Your task to perform on an android device: open sync settings in chrome Image 0: 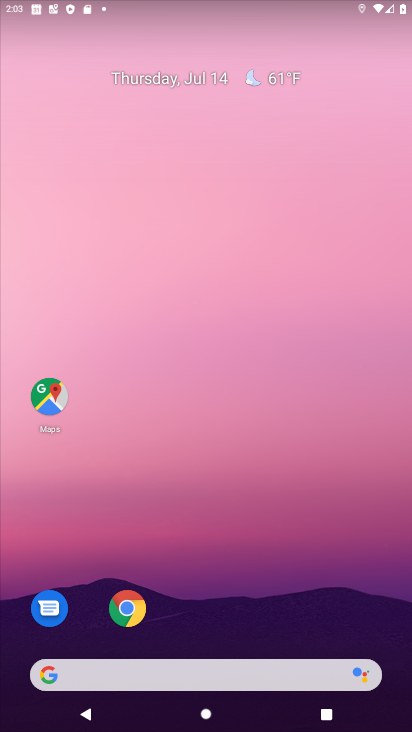
Step 0: click (126, 609)
Your task to perform on an android device: open sync settings in chrome Image 1: 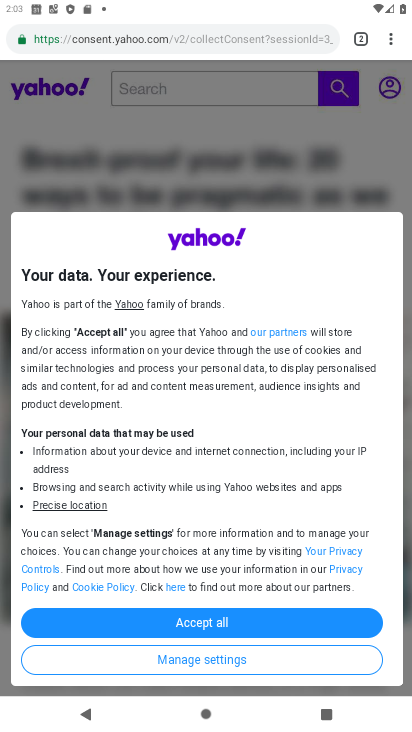
Step 1: click (390, 40)
Your task to perform on an android device: open sync settings in chrome Image 2: 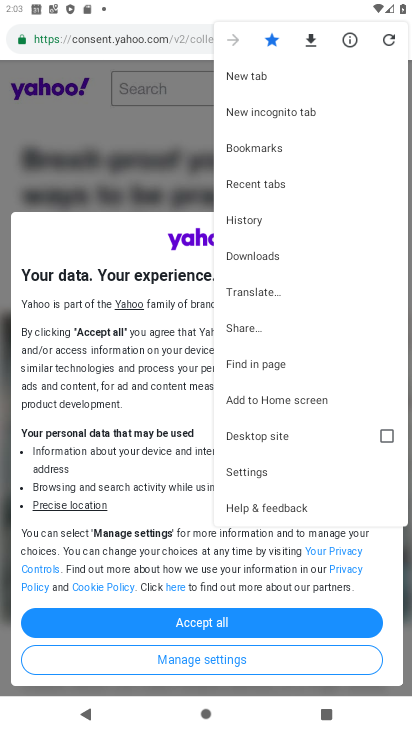
Step 2: click (250, 474)
Your task to perform on an android device: open sync settings in chrome Image 3: 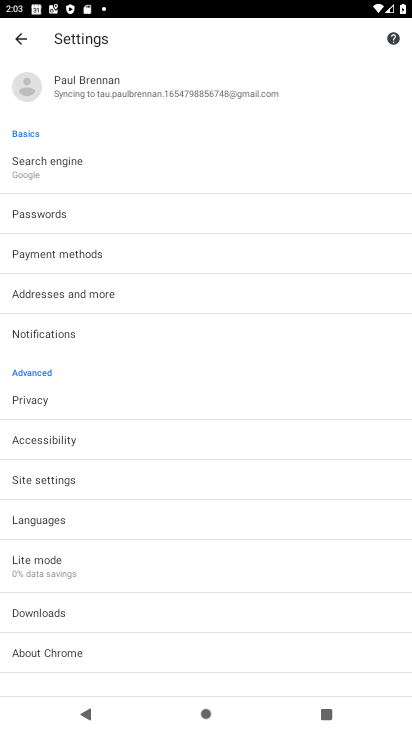
Step 3: click (41, 478)
Your task to perform on an android device: open sync settings in chrome Image 4: 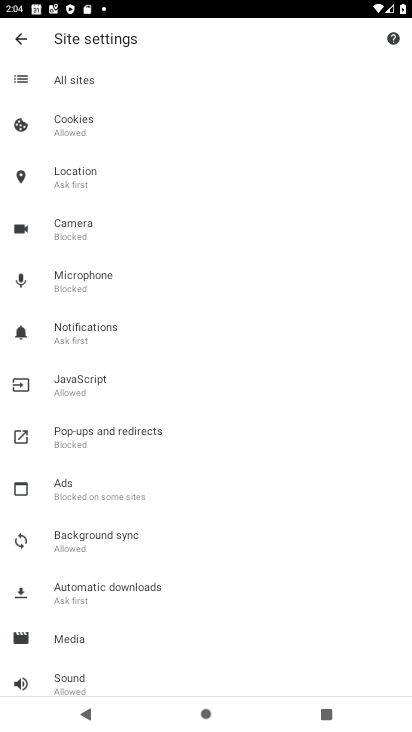
Step 4: click (97, 537)
Your task to perform on an android device: open sync settings in chrome Image 5: 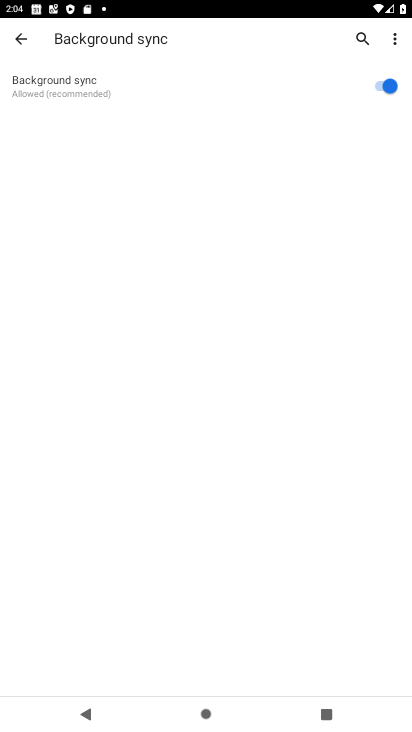
Step 5: task complete